Your task to perform on an android device: Go to calendar. Show me events next week Image 0: 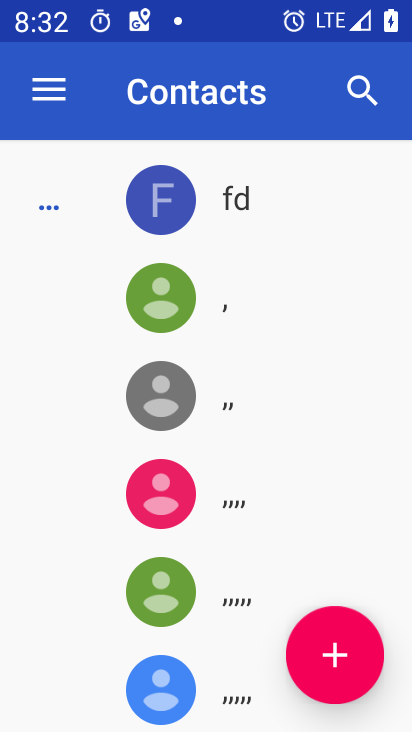
Step 0: press home button
Your task to perform on an android device: Go to calendar. Show me events next week Image 1: 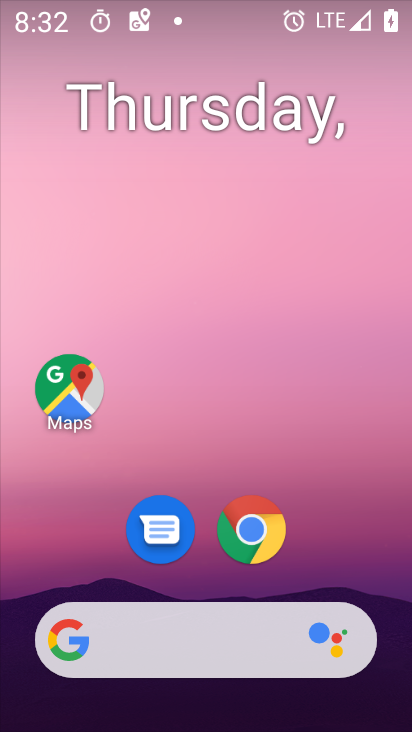
Step 1: drag from (368, 601) to (382, 255)
Your task to perform on an android device: Go to calendar. Show me events next week Image 2: 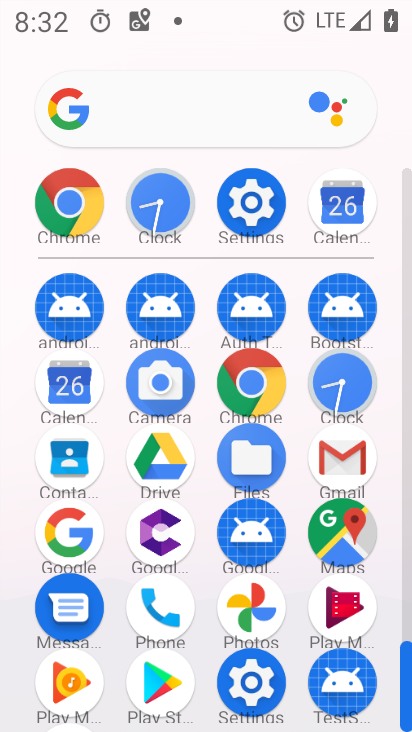
Step 2: click (339, 220)
Your task to perform on an android device: Go to calendar. Show me events next week Image 3: 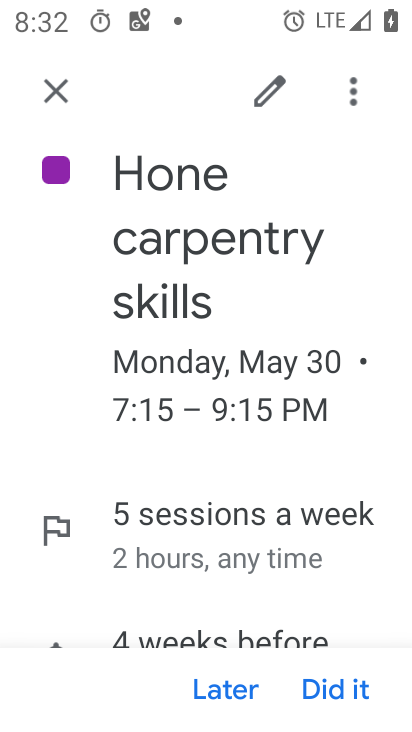
Step 3: task complete